Your task to perform on an android device: delete a single message in the gmail app Image 0: 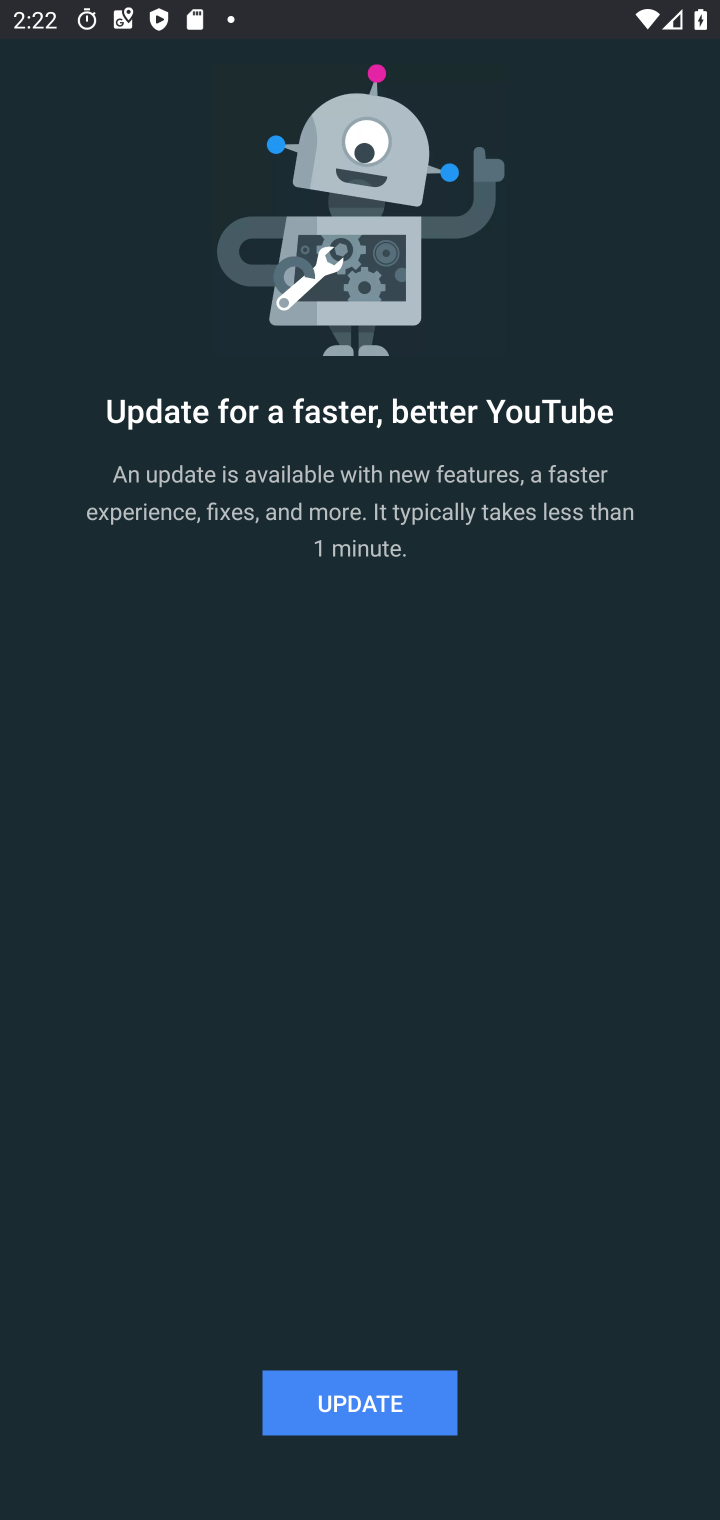
Step 0: press home button
Your task to perform on an android device: delete a single message in the gmail app Image 1: 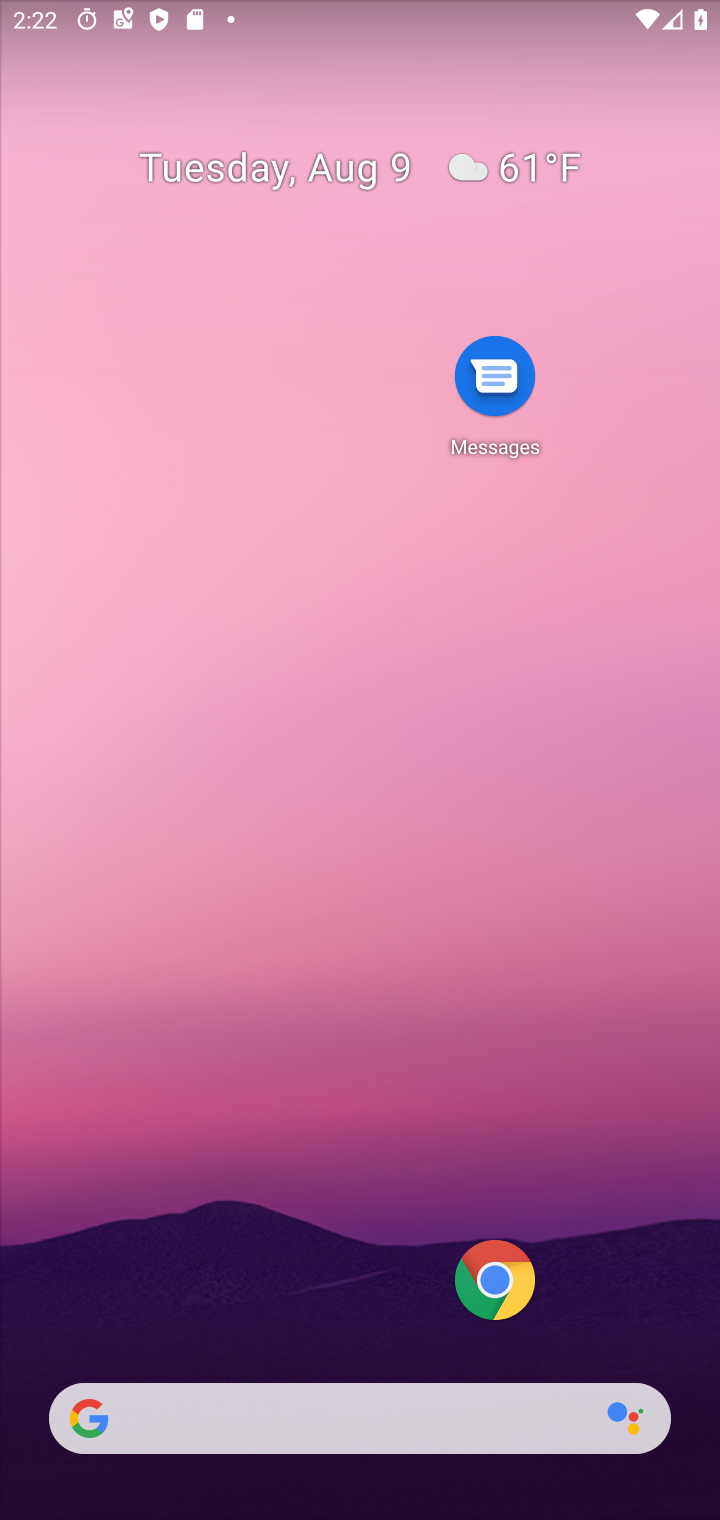
Step 1: drag from (427, 1384) to (447, 23)
Your task to perform on an android device: delete a single message in the gmail app Image 2: 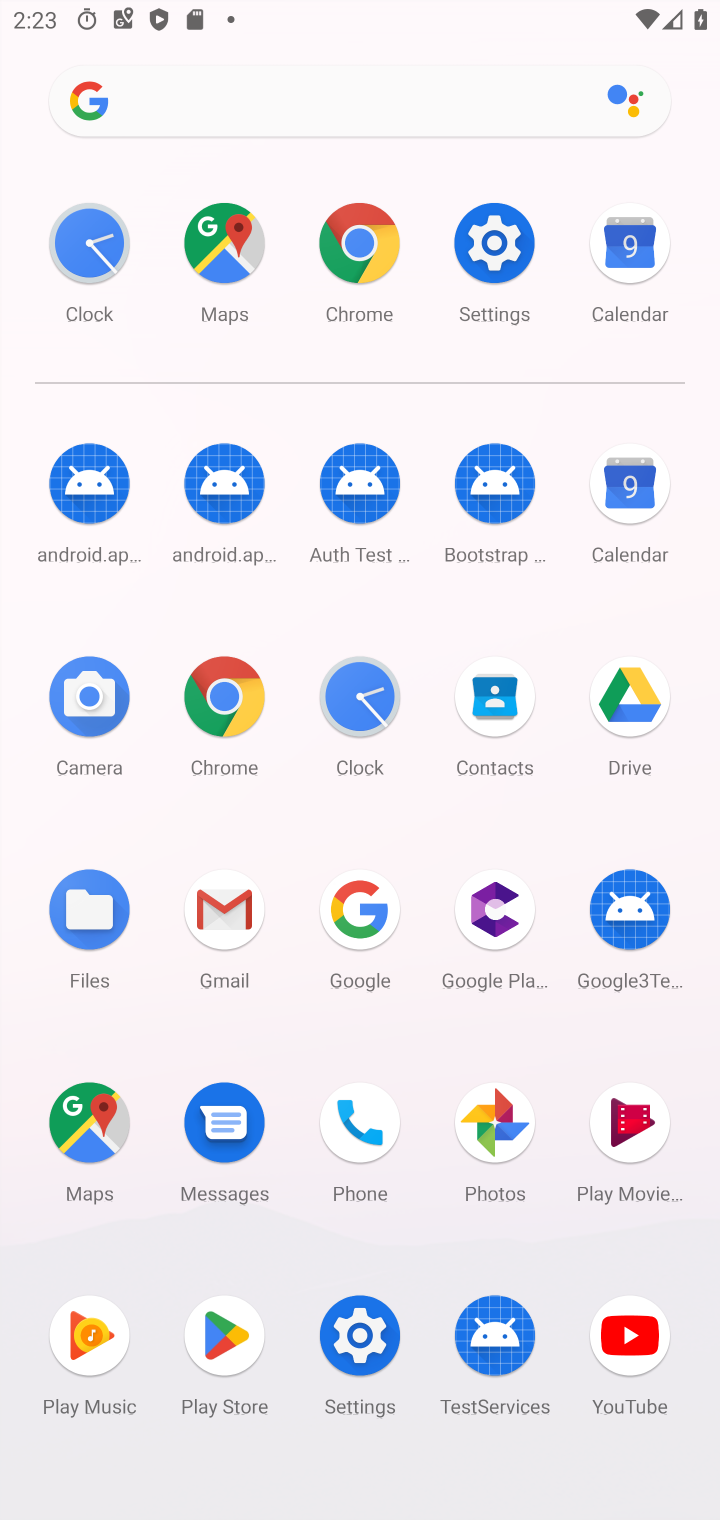
Step 2: click (209, 913)
Your task to perform on an android device: delete a single message in the gmail app Image 3: 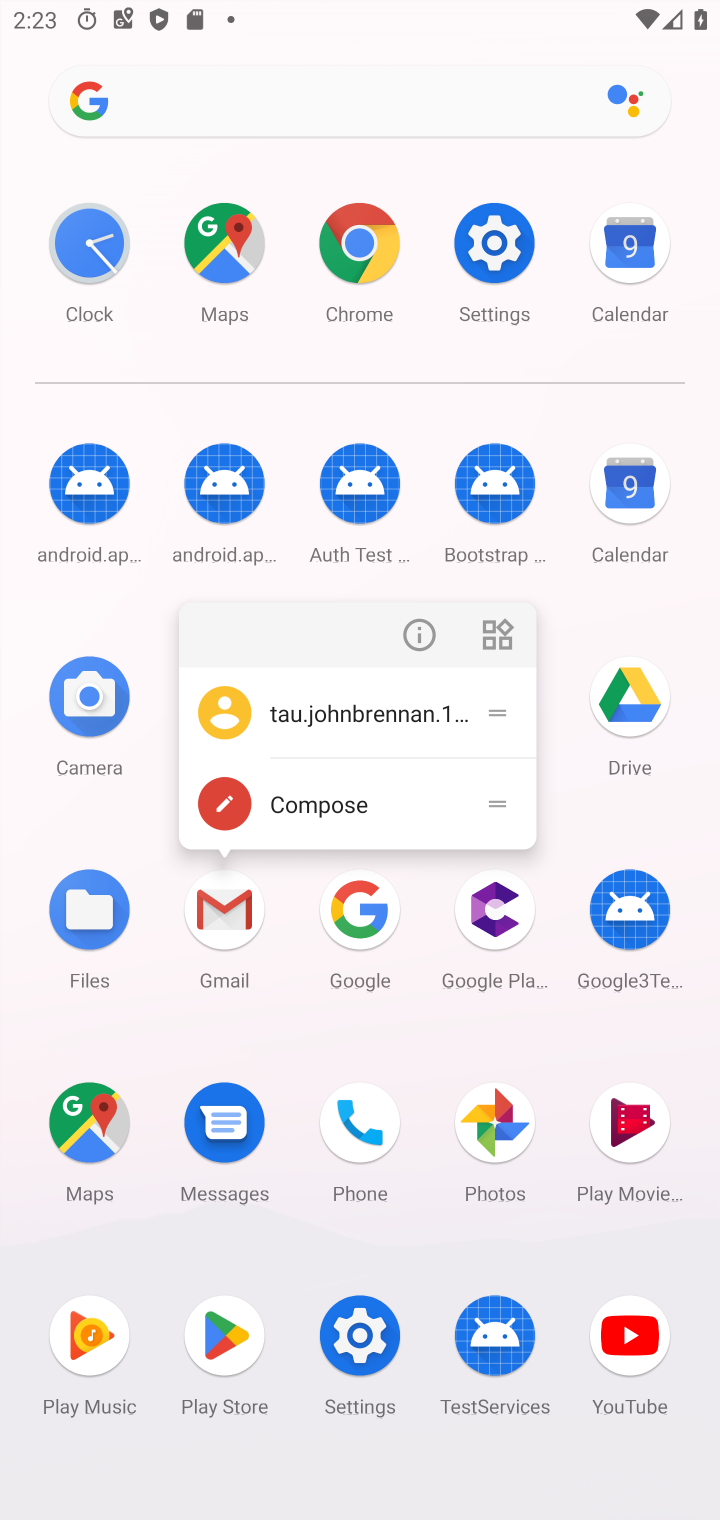
Step 3: click (239, 916)
Your task to perform on an android device: delete a single message in the gmail app Image 4: 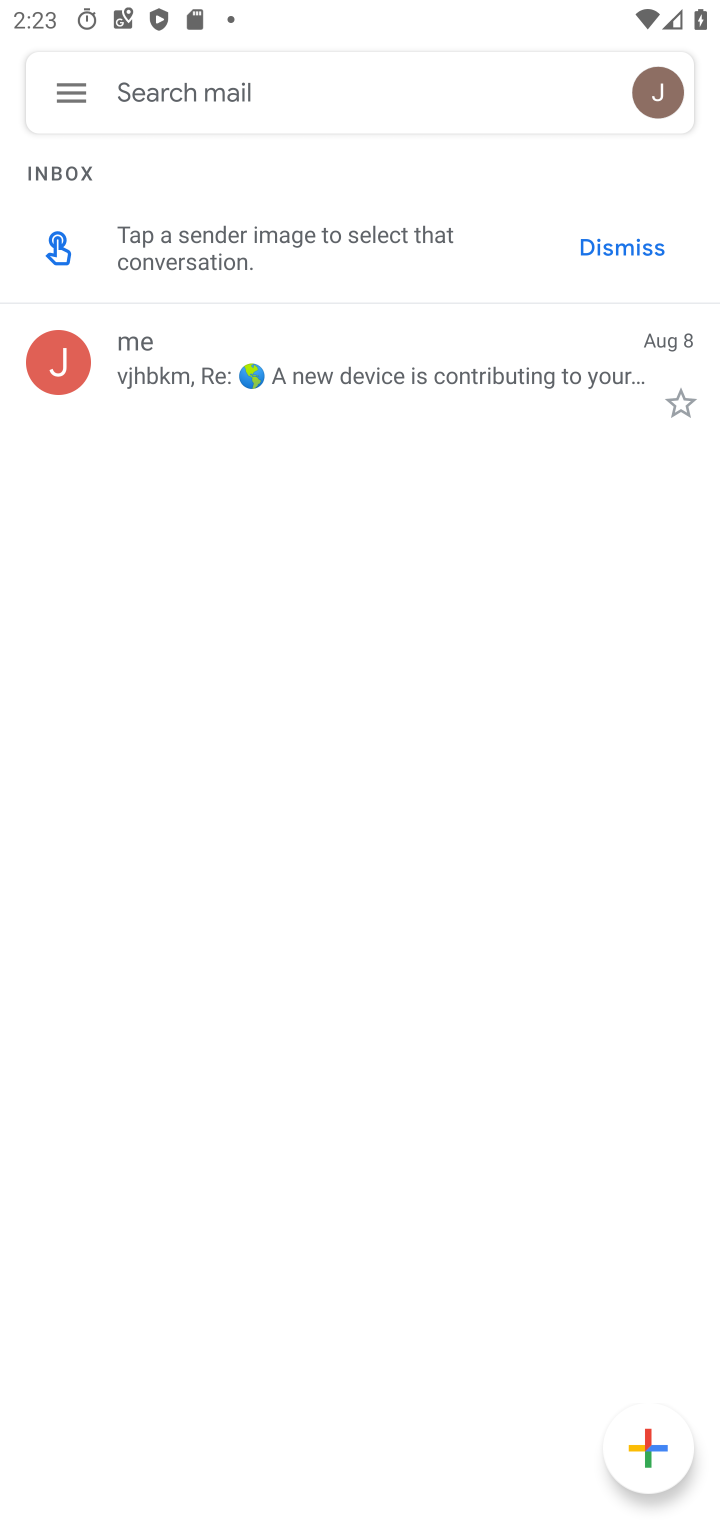
Step 4: click (70, 348)
Your task to perform on an android device: delete a single message in the gmail app Image 5: 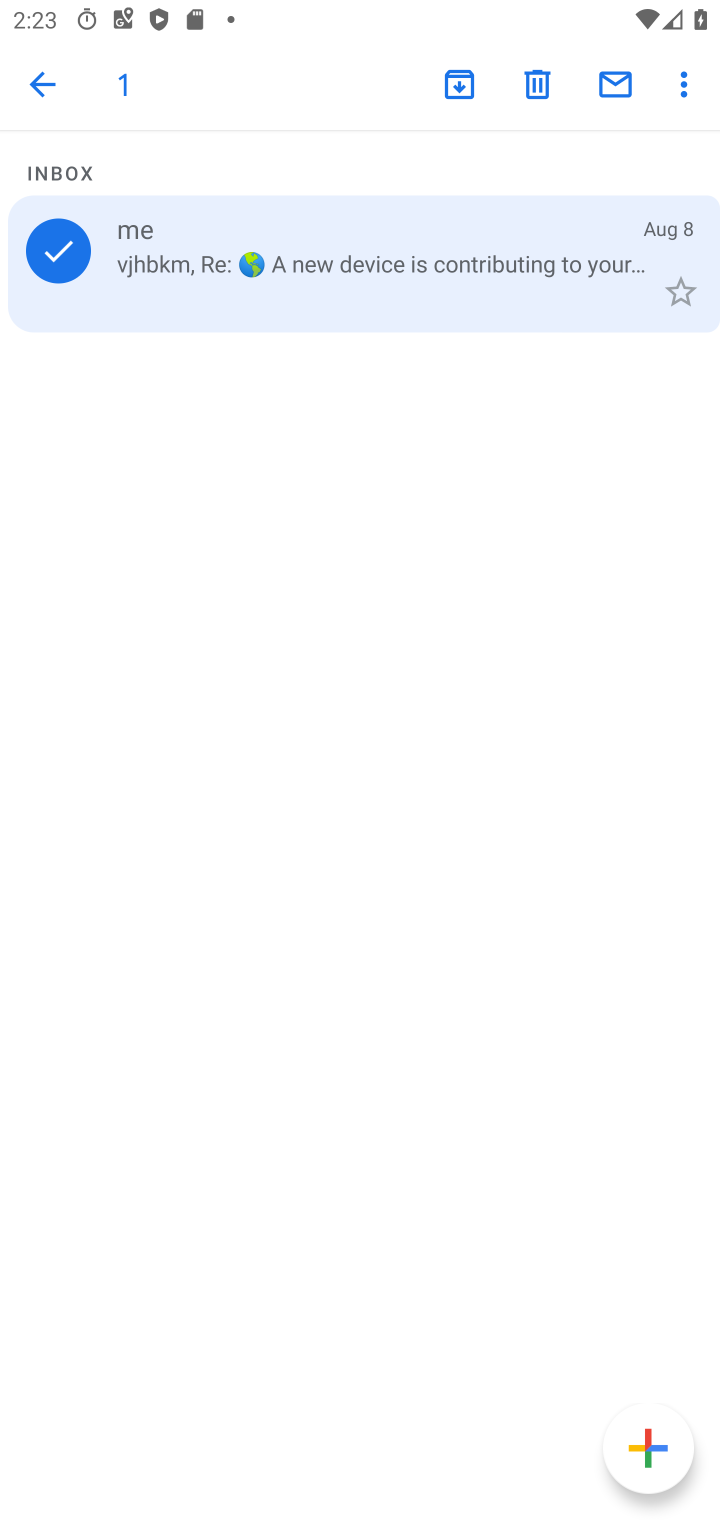
Step 5: click (533, 77)
Your task to perform on an android device: delete a single message in the gmail app Image 6: 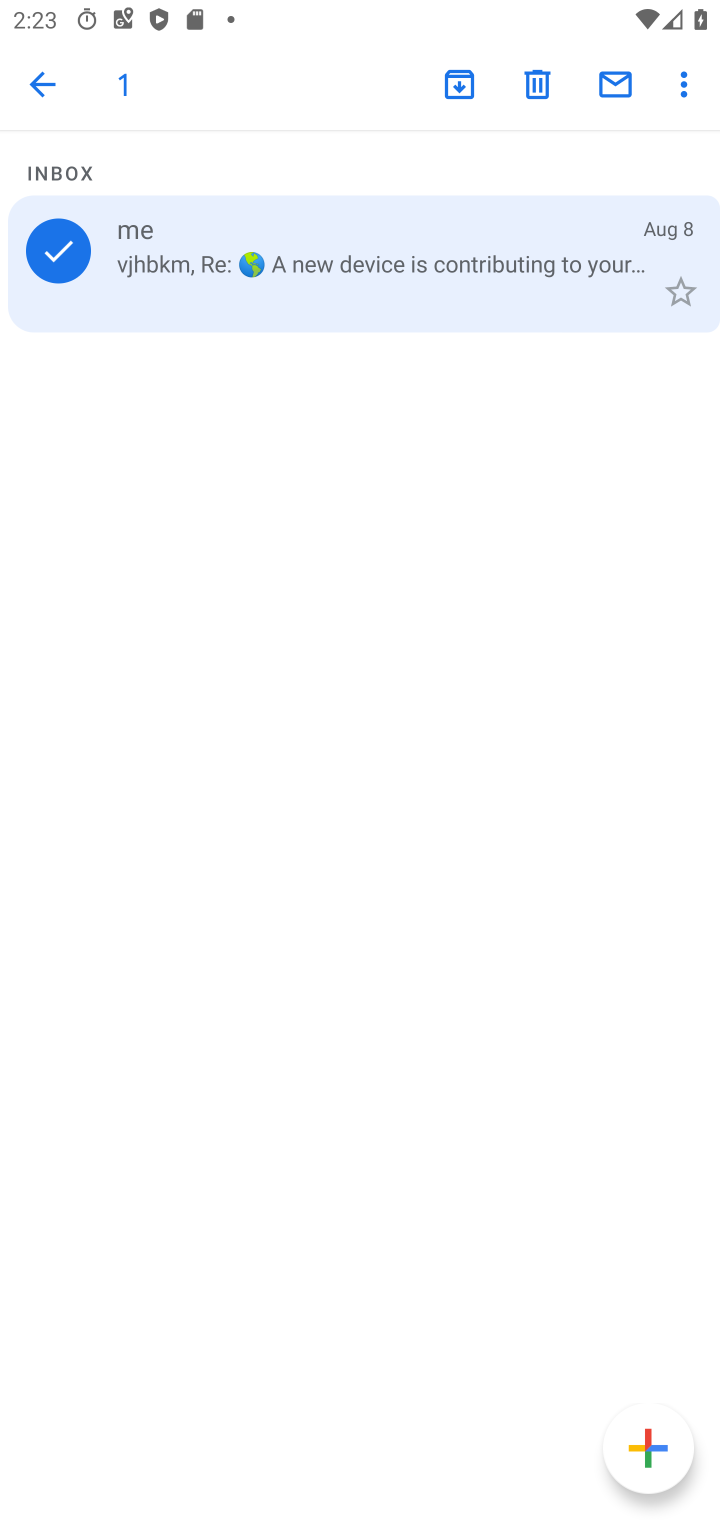
Step 6: click (538, 81)
Your task to perform on an android device: delete a single message in the gmail app Image 7: 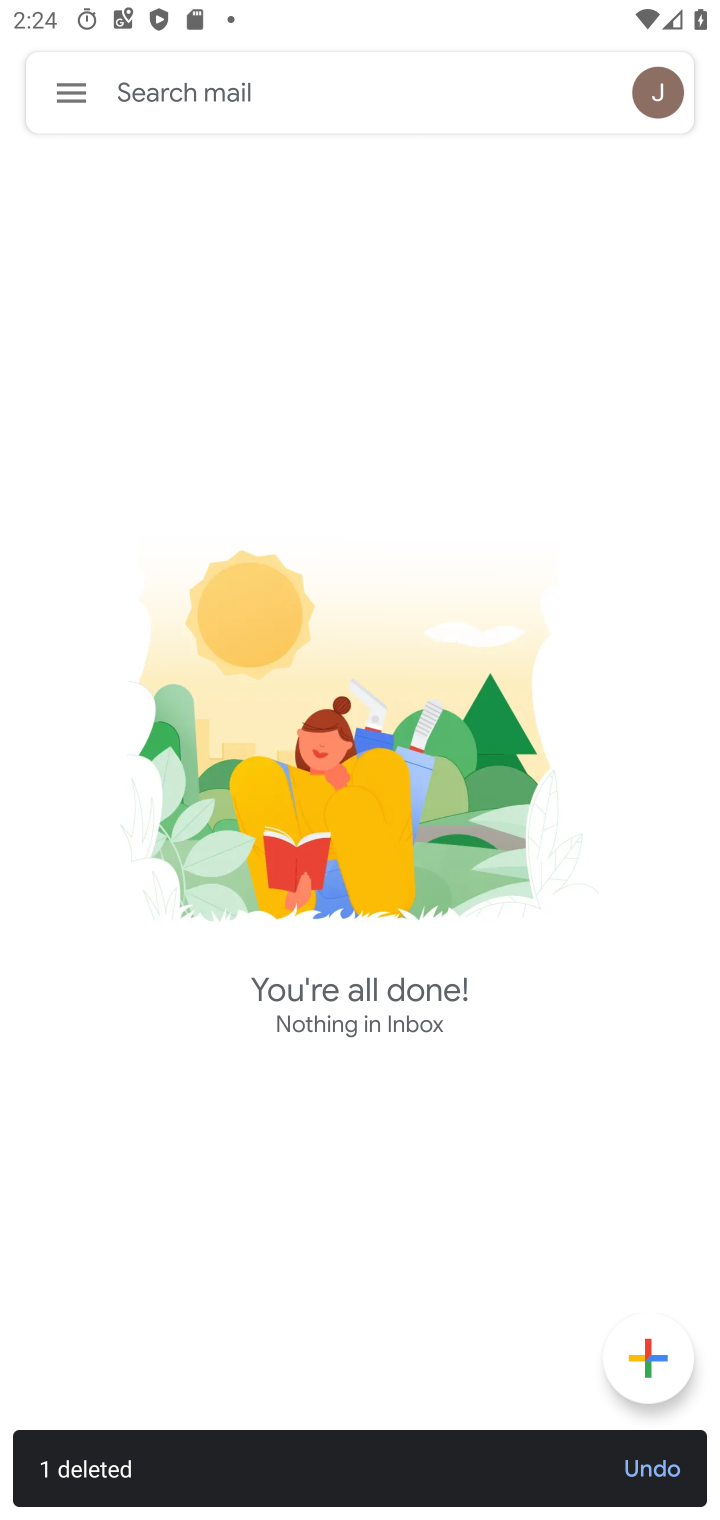
Step 7: task complete